Your task to perform on an android device: Open battery settings Image 0: 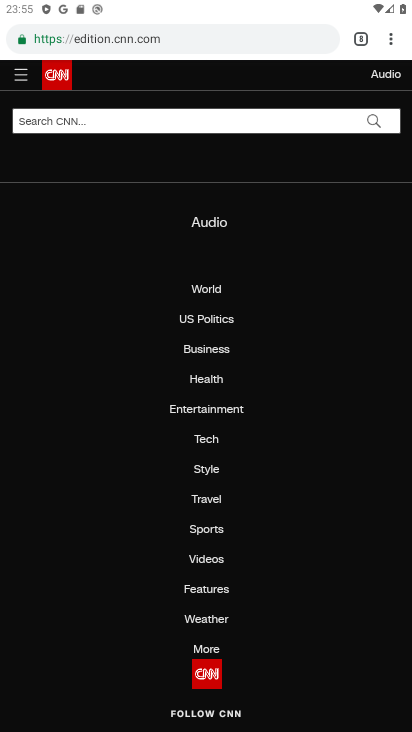
Step 0: press home button
Your task to perform on an android device: Open battery settings Image 1: 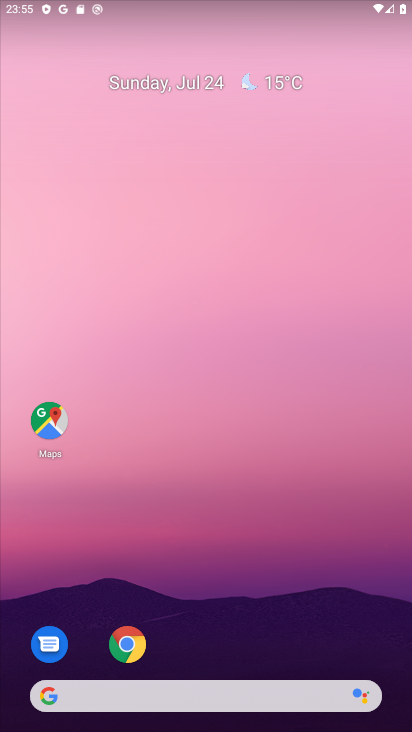
Step 1: drag from (213, 728) to (304, 89)
Your task to perform on an android device: Open battery settings Image 2: 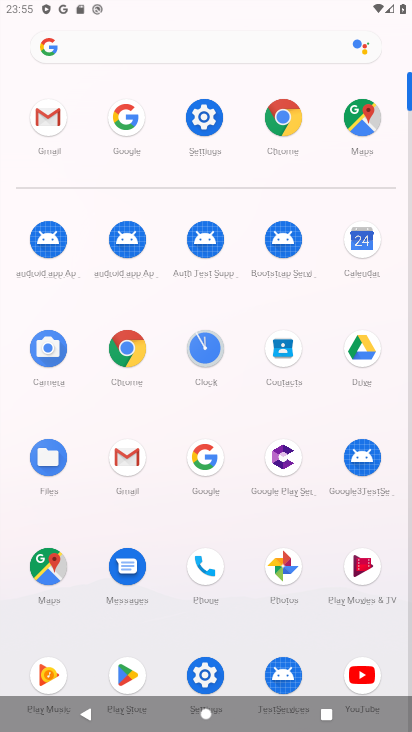
Step 2: click (208, 108)
Your task to perform on an android device: Open battery settings Image 3: 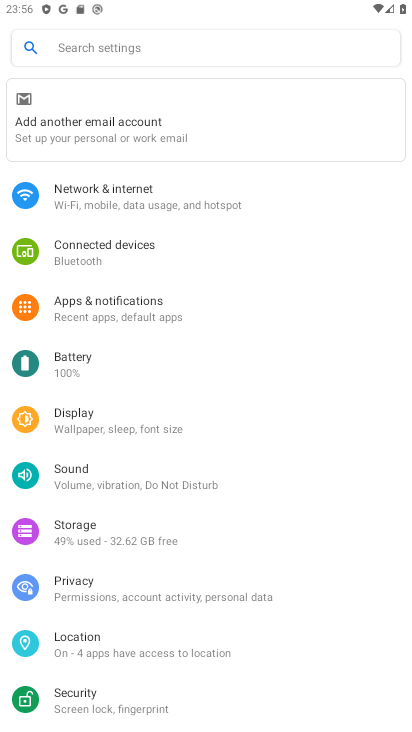
Step 3: click (65, 355)
Your task to perform on an android device: Open battery settings Image 4: 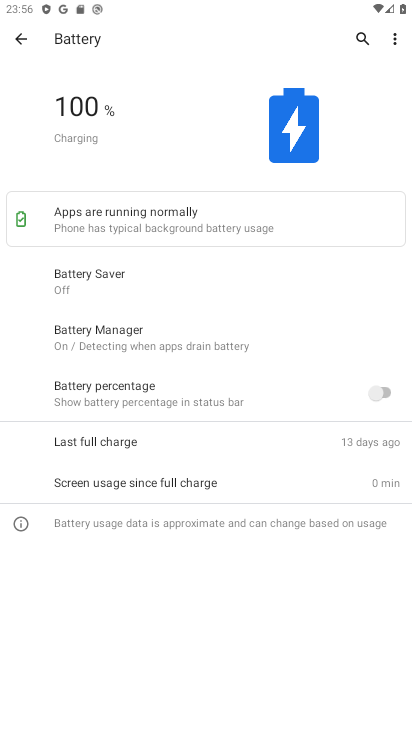
Step 4: task complete